Your task to perform on an android device: toggle translation in the chrome app Image 0: 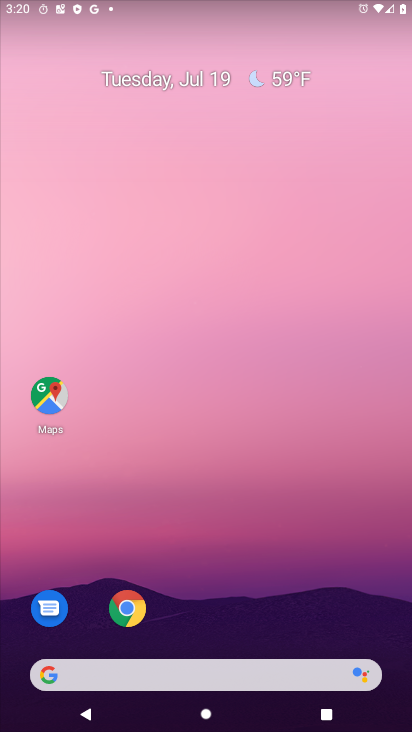
Step 0: click (134, 617)
Your task to perform on an android device: toggle translation in the chrome app Image 1: 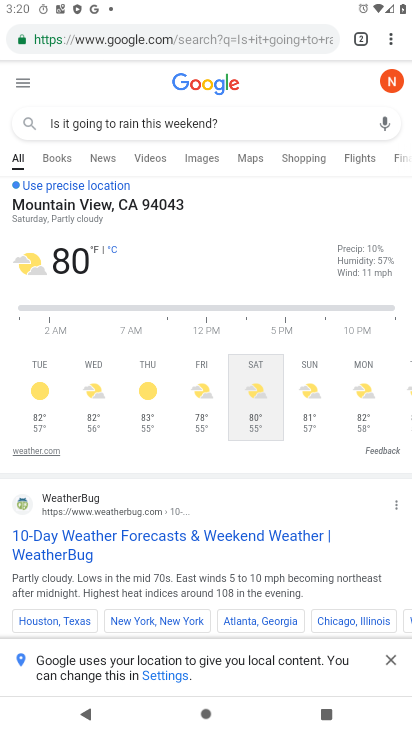
Step 1: click (386, 38)
Your task to perform on an android device: toggle translation in the chrome app Image 2: 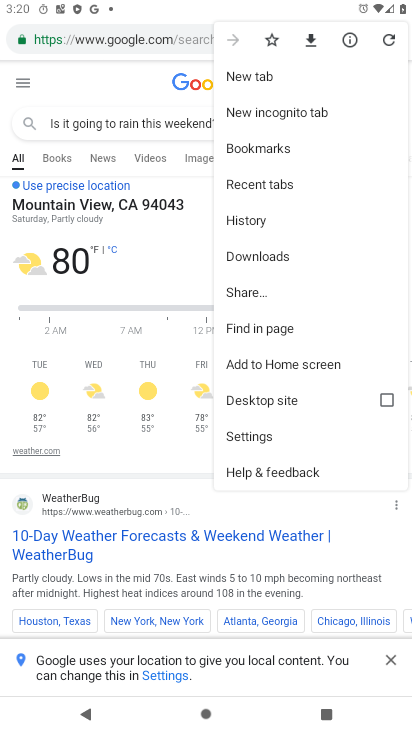
Step 2: click (250, 435)
Your task to perform on an android device: toggle translation in the chrome app Image 3: 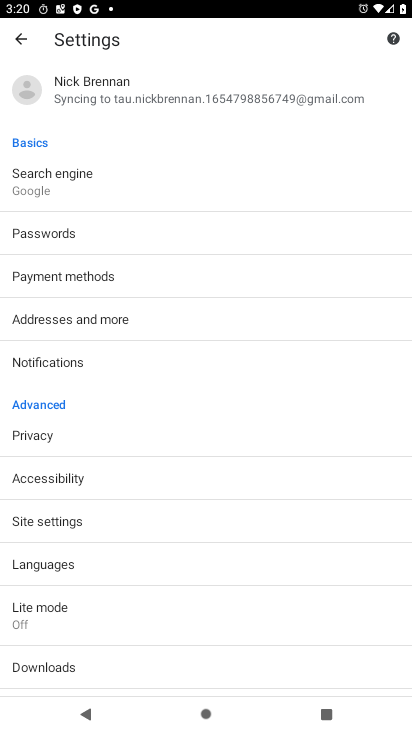
Step 3: click (107, 551)
Your task to perform on an android device: toggle translation in the chrome app Image 4: 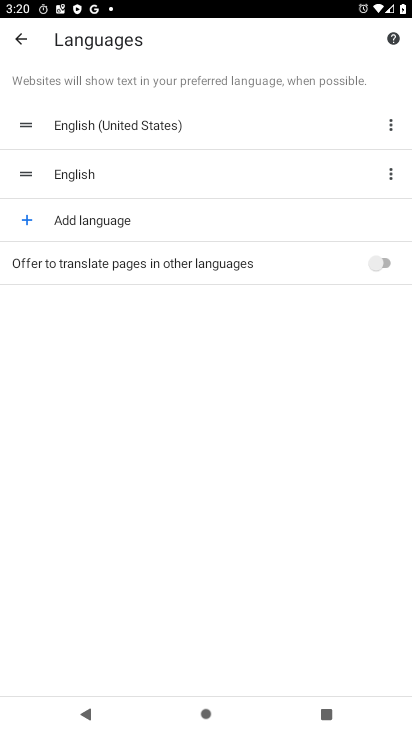
Step 4: click (374, 257)
Your task to perform on an android device: toggle translation in the chrome app Image 5: 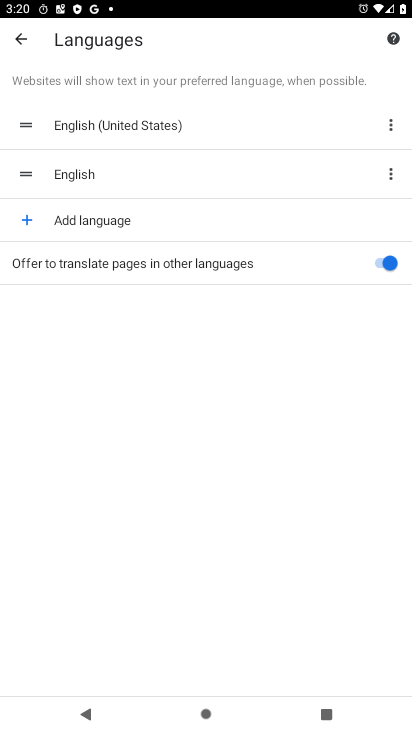
Step 5: task complete